Your task to perform on an android device: open app "Google Calendar" Image 0: 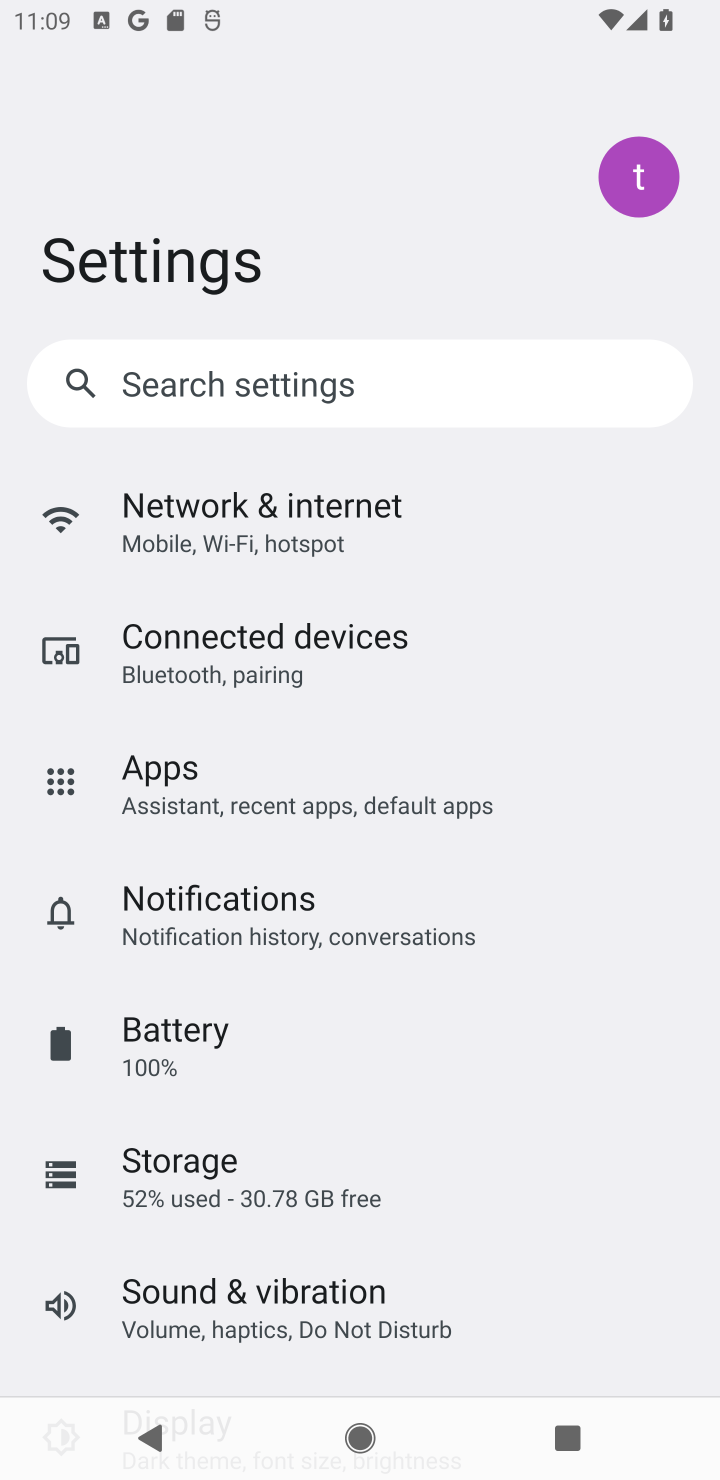
Step 0: press home button
Your task to perform on an android device: open app "Google Calendar" Image 1: 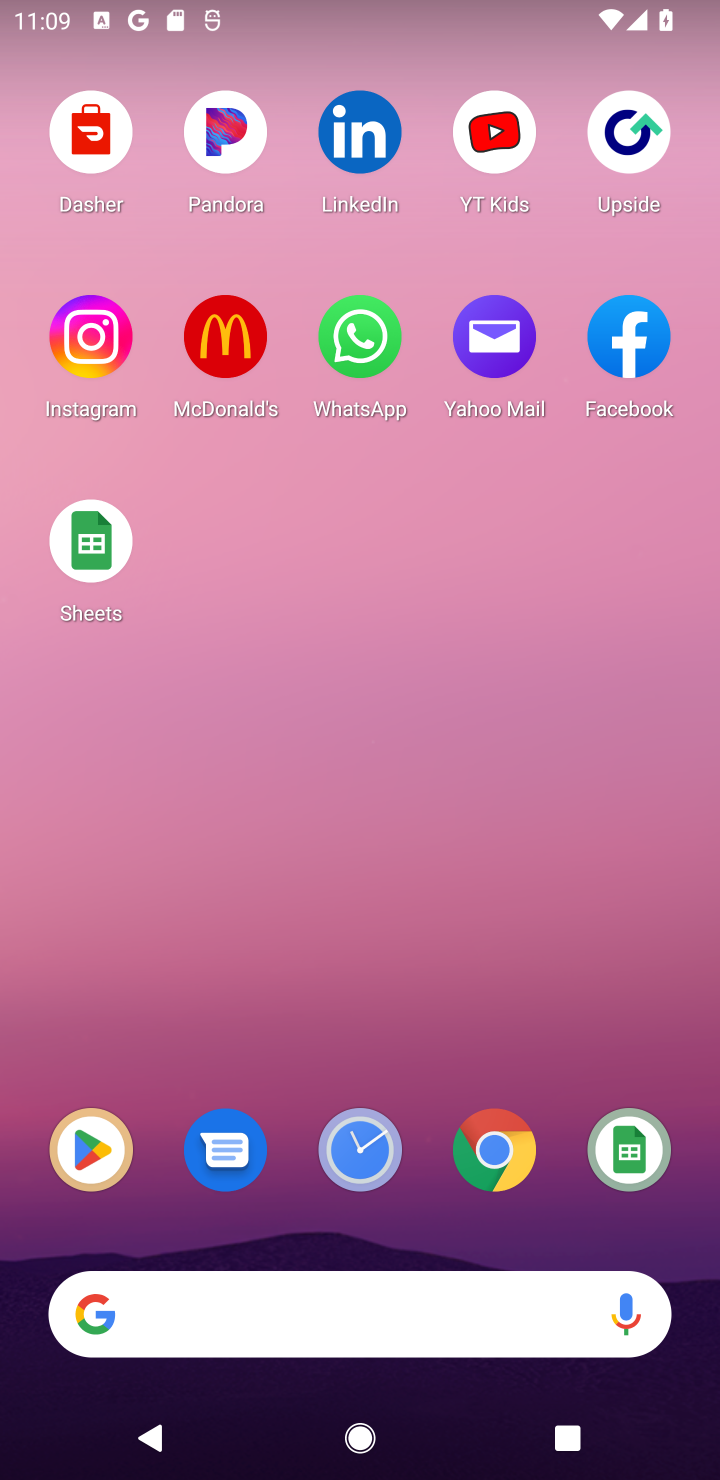
Step 1: click (94, 1136)
Your task to perform on an android device: open app "Google Calendar" Image 2: 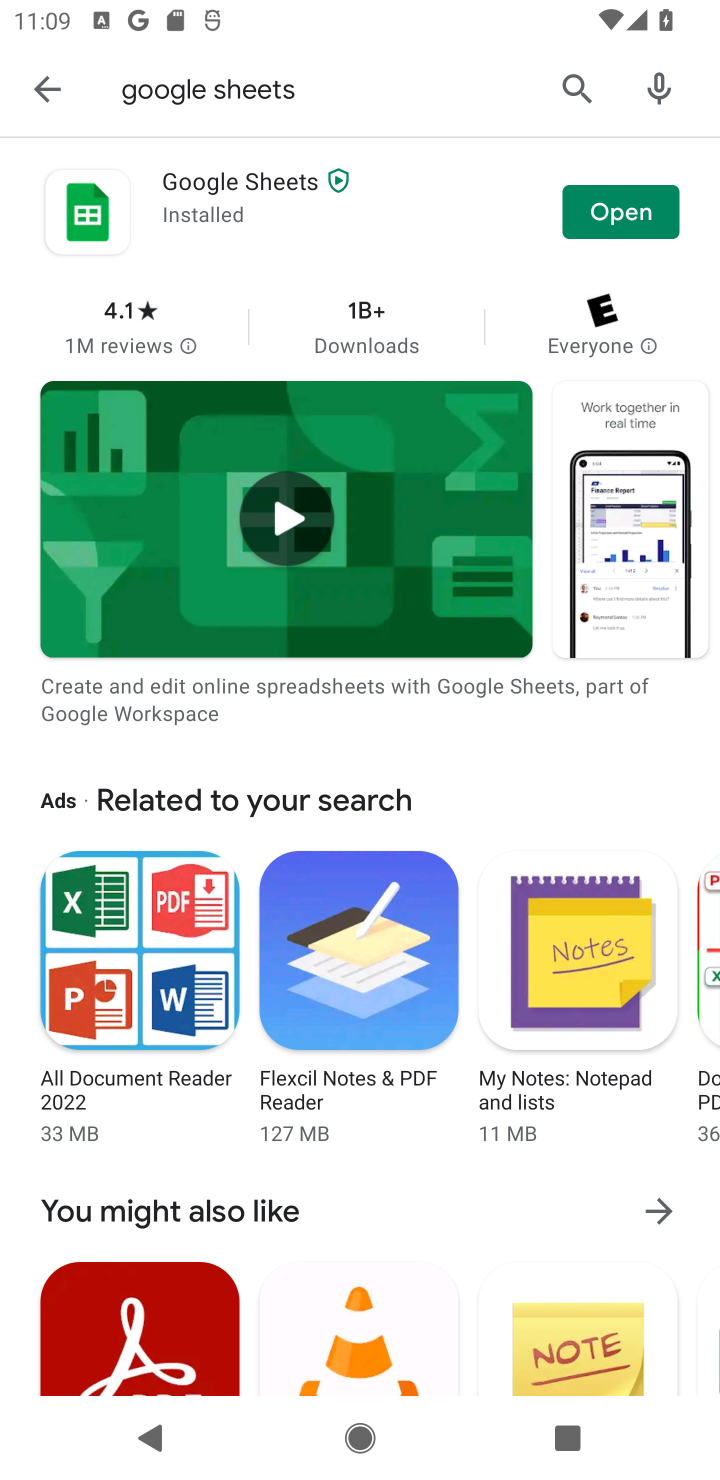
Step 2: click (573, 103)
Your task to perform on an android device: open app "Google Calendar" Image 3: 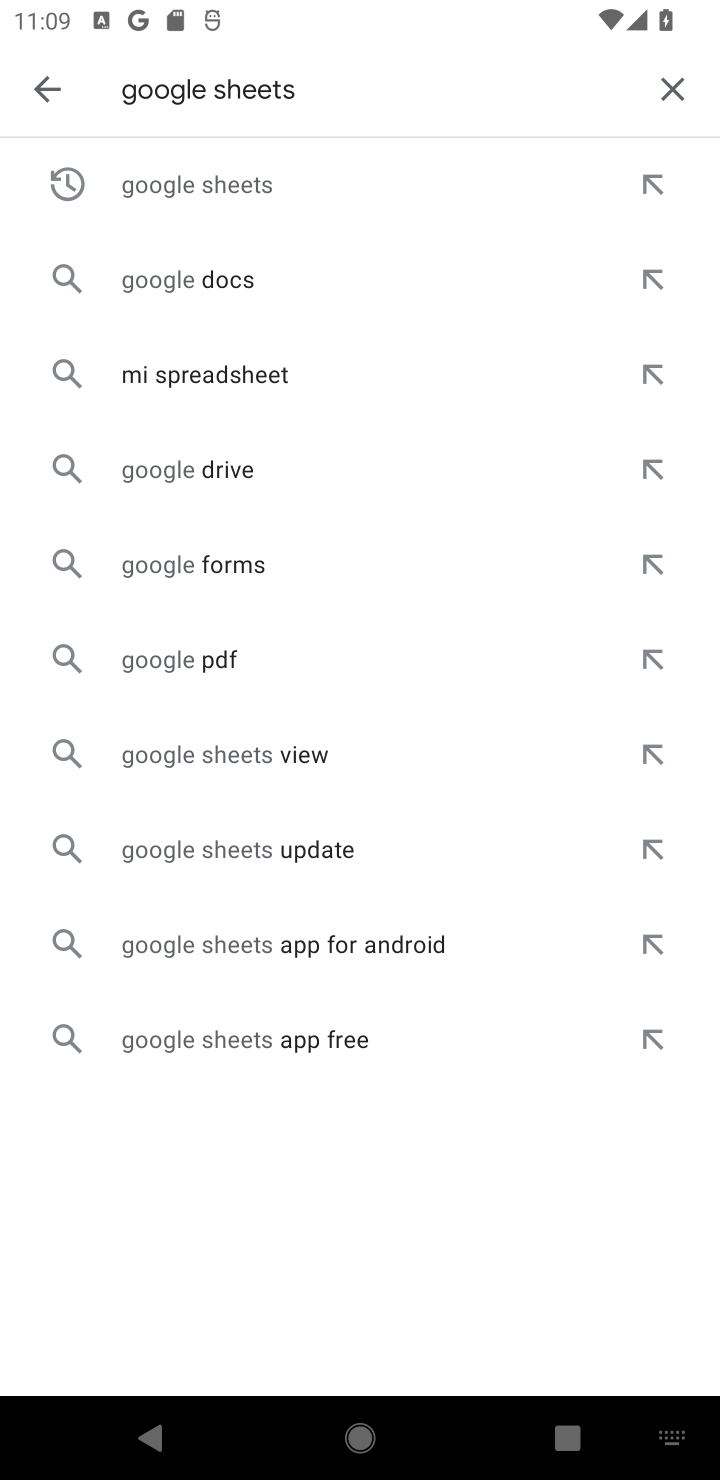
Step 3: click (666, 83)
Your task to perform on an android device: open app "Google Calendar" Image 4: 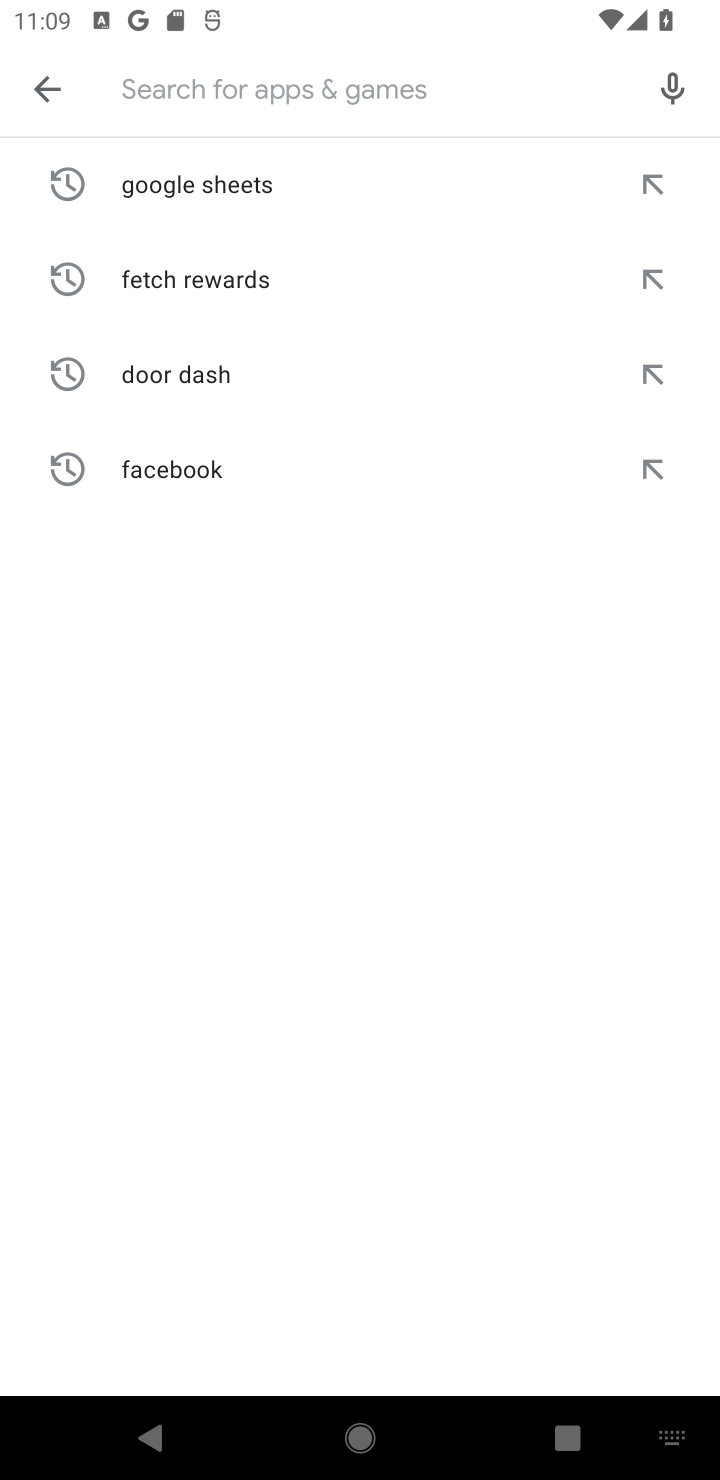
Step 4: click (212, 85)
Your task to perform on an android device: open app "Google Calendar" Image 5: 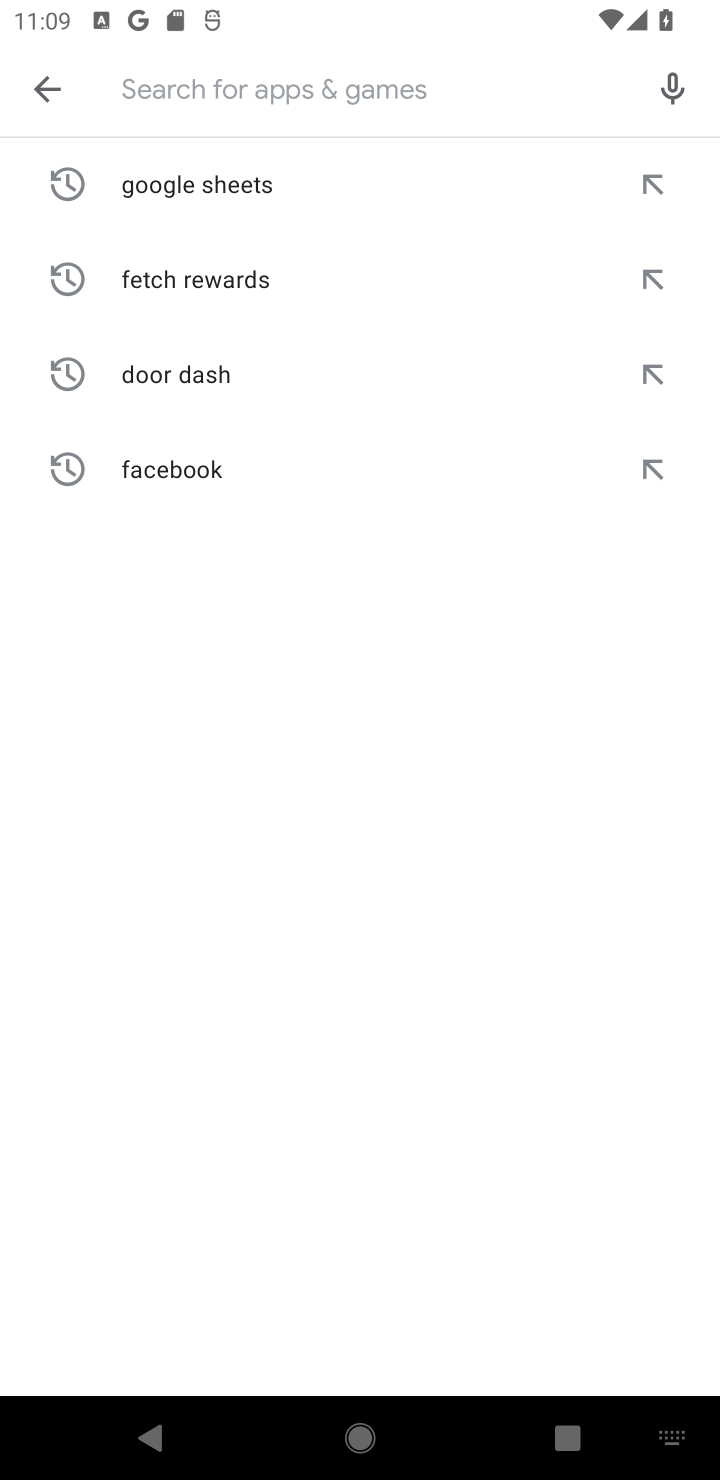
Step 5: type "google calender"
Your task to perform on an android device: open app "Google Calendar" Image 6: 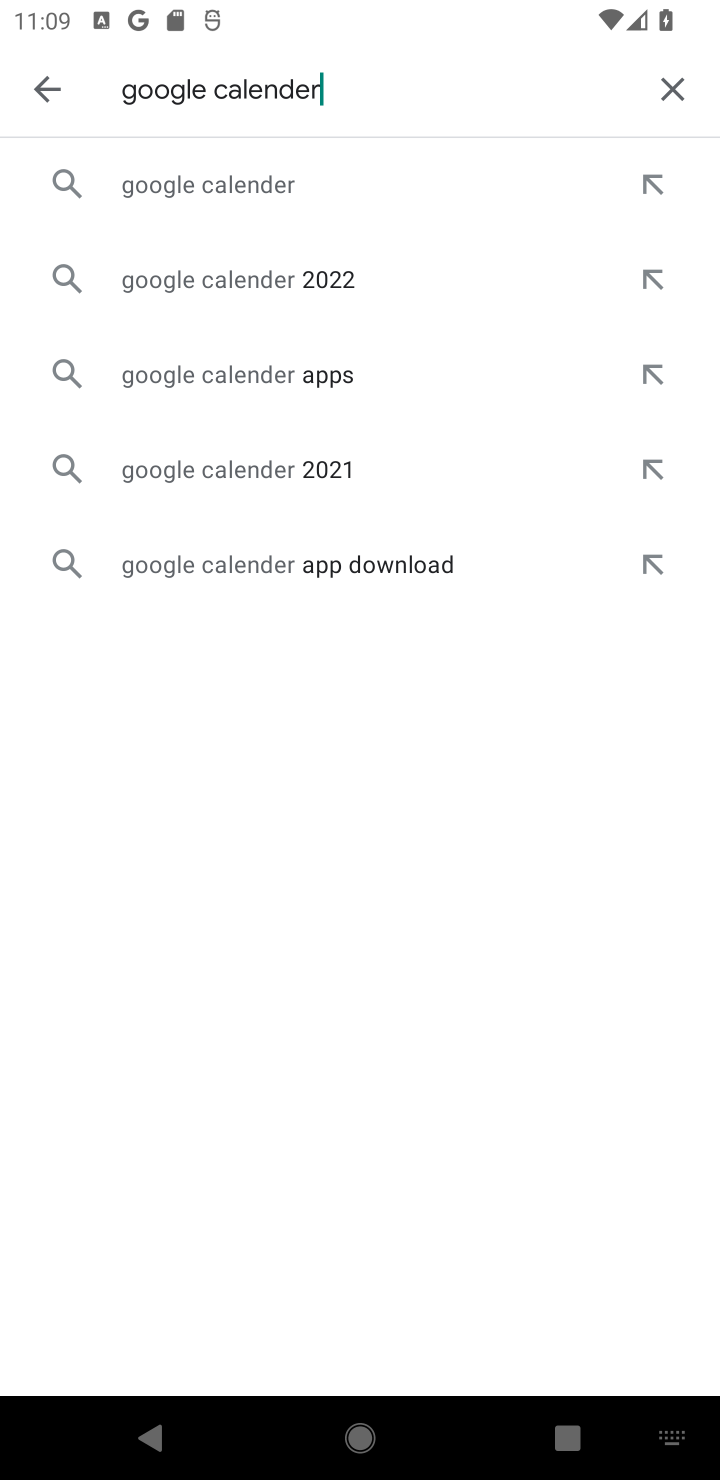
Step 6: click (247, 142)
Your task to perform on an android device: open app "Google Calendar" Image 7: 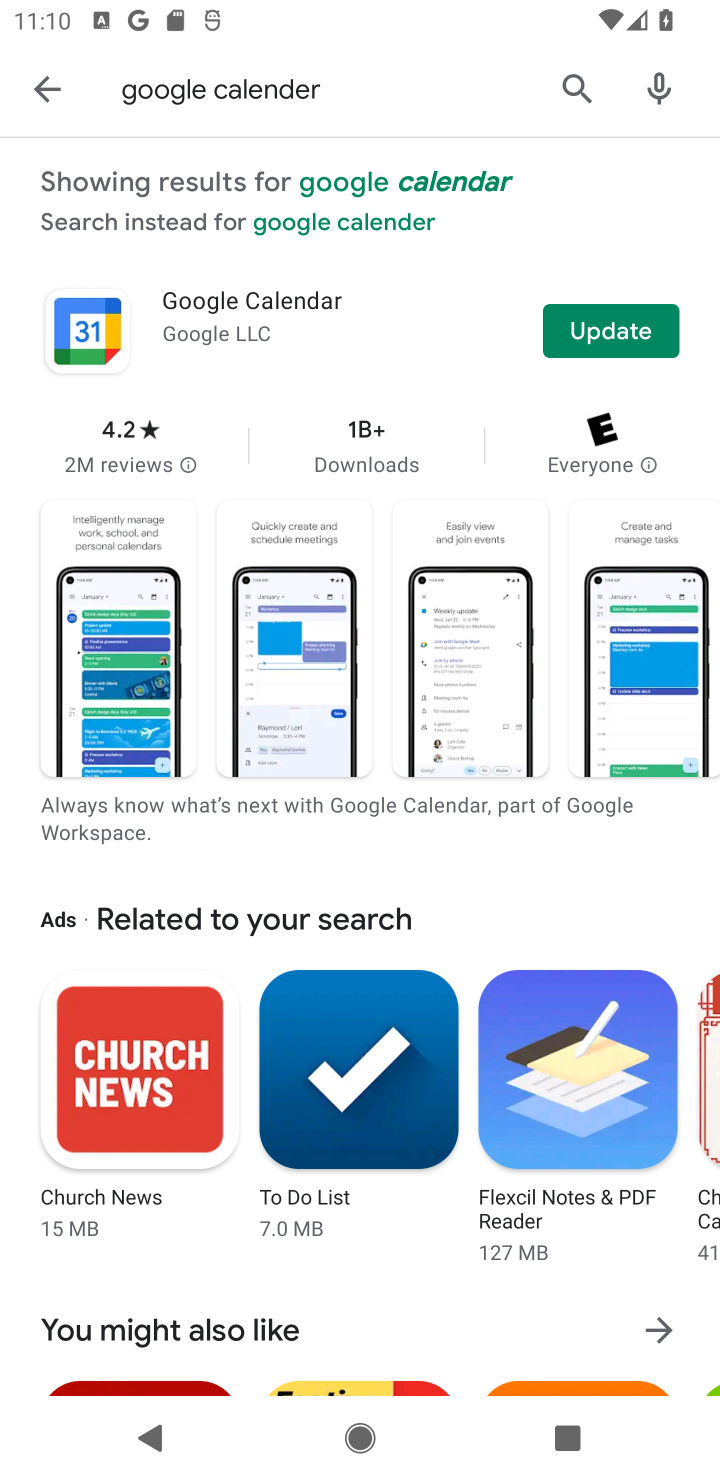
Step 7: click (206, 307)
Your task to perform on an android device: open app "Google Calendar" Image 8: 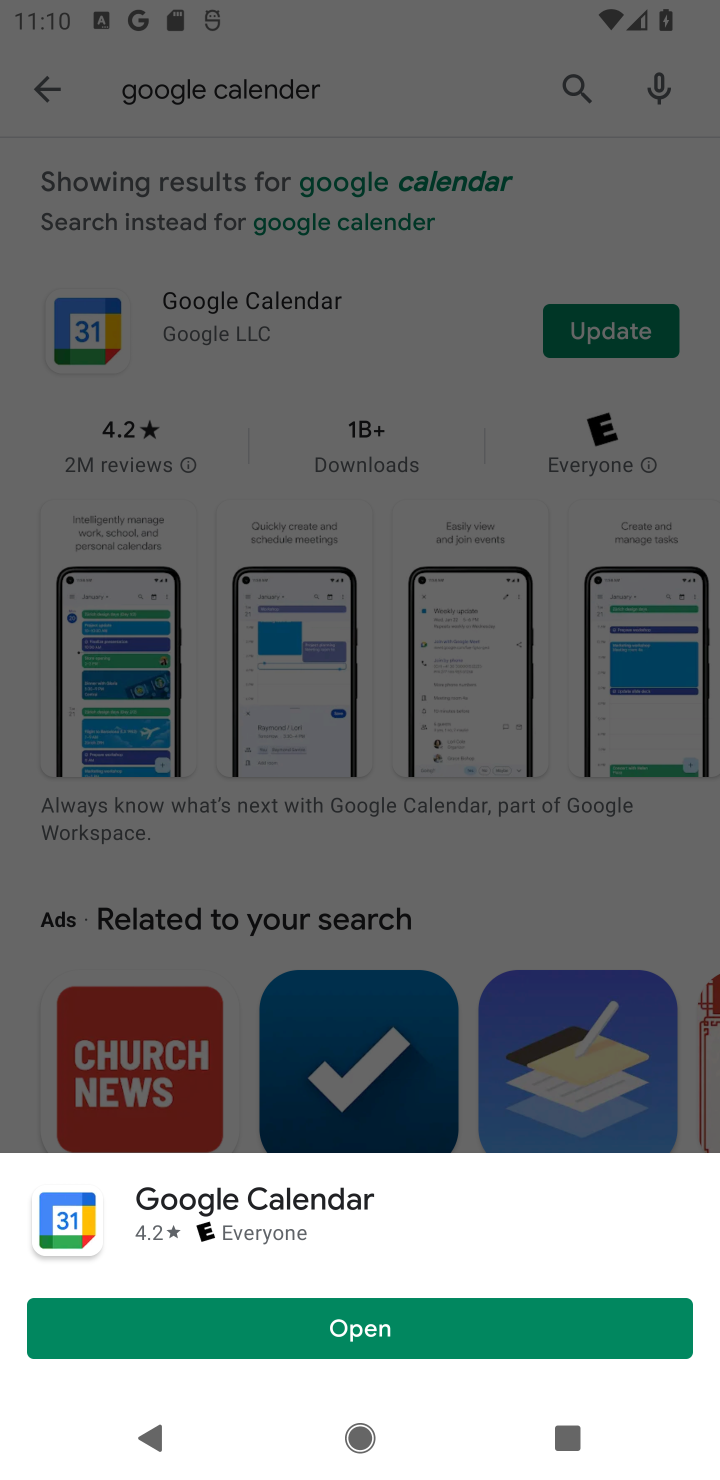
Step 8: task complete